Your task to perform on an android device: open a bookmark in the chrome app Image 0: 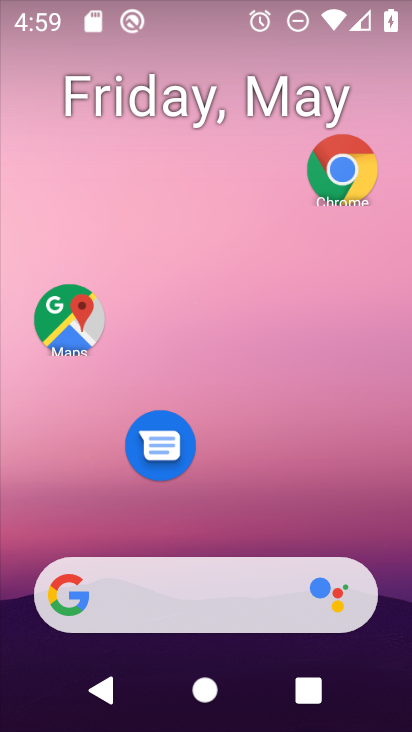
Step 0: click (333, 179)
Your task to perform on an android device: open a bookmark in the chrome app Image 1: 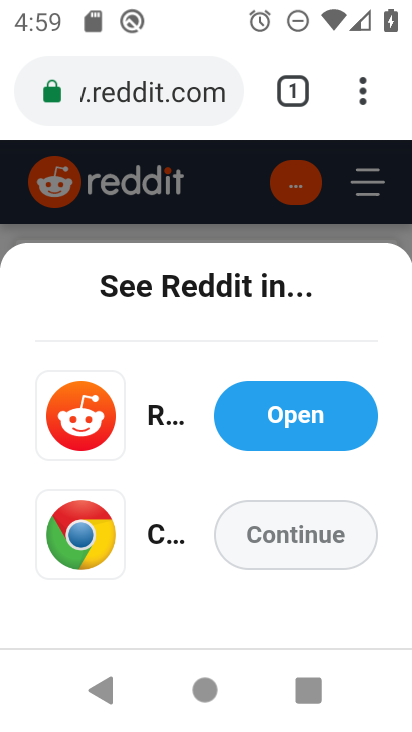
Step 1: click (315, 548)
Your task to perform on an android device: open a bookmark in the chrome app Image 2: 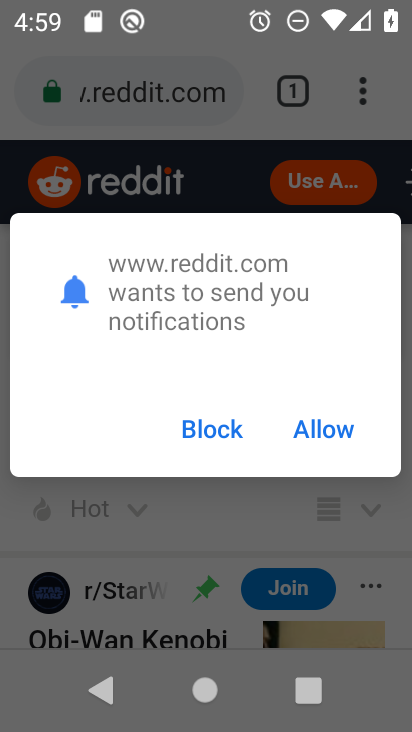
Step 2: click (216, 436)
Your task to perform on an android device: open a bookmark in the chrome app Image 3: 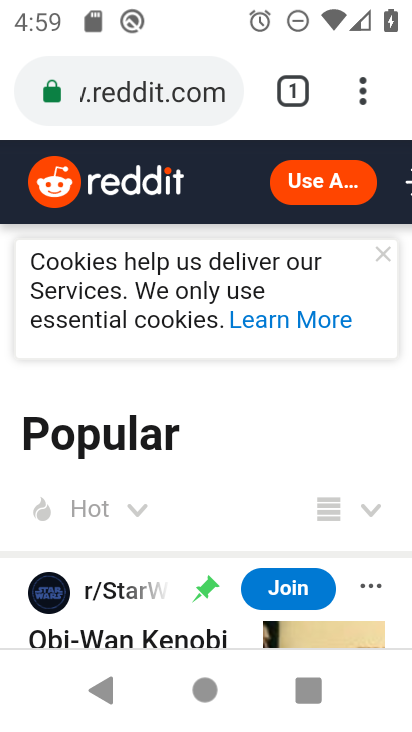
Step 3: click (361, 87)
Your task to perform on an android device: open a bookmark in the chrome app Image 4: 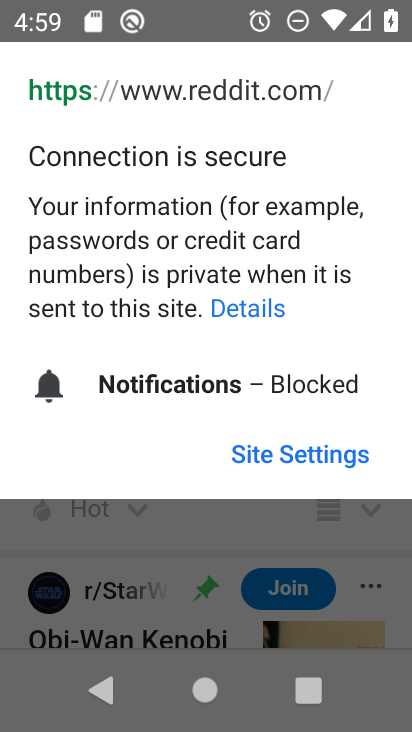
Step 4: click (283, 539)
Your task to perform on an android device: open a bookmark in the chrome app Image 5: 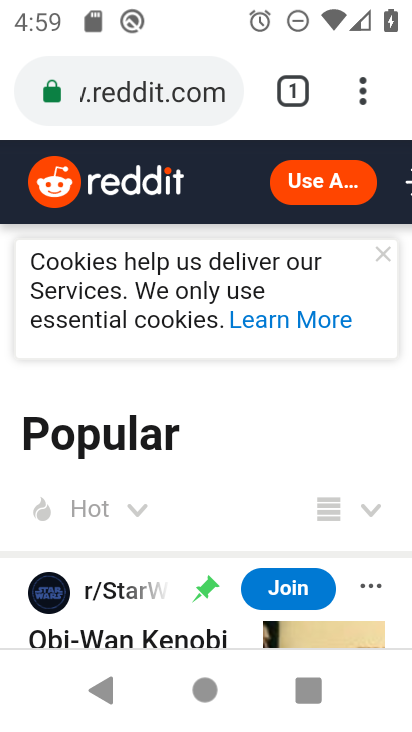
Step 5: click (366, 94)
Your task to perform on an android device: open a bookmark in the chrome app Image 6: 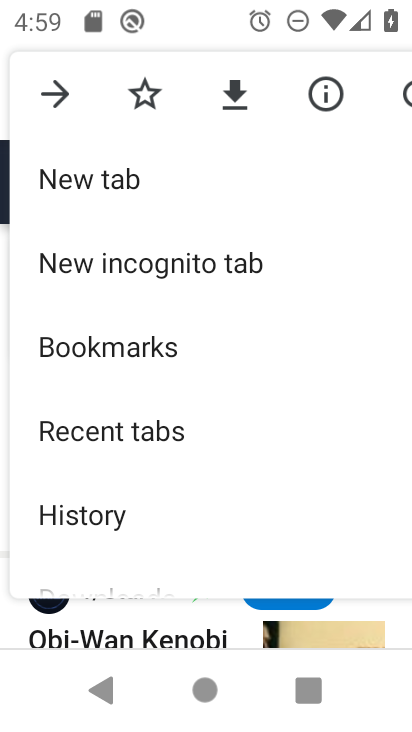
Step 6: click (177, 343)
Your task to perform on an android device: open a bookmark in the chrome app Image 7: 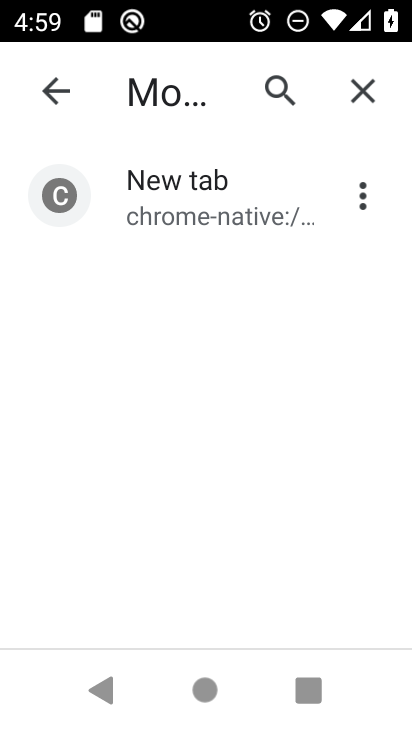
Step 7: click (214, 216)
Your task to perform on an android device: open a bookmark in the chrome app Image 8: 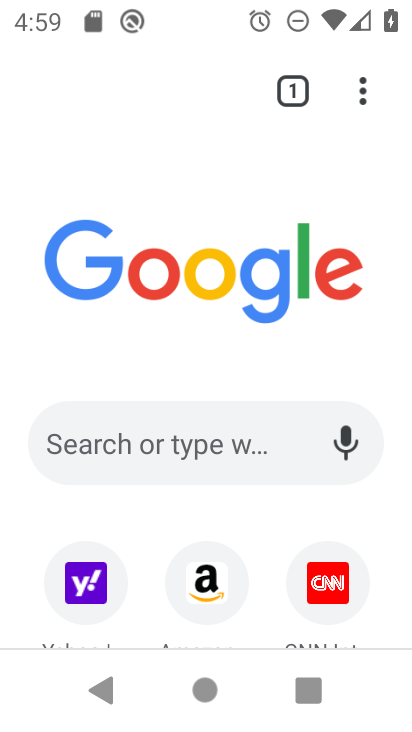
Step 8: task complete